Your task to perform on an android device: show emergency info Image 0: 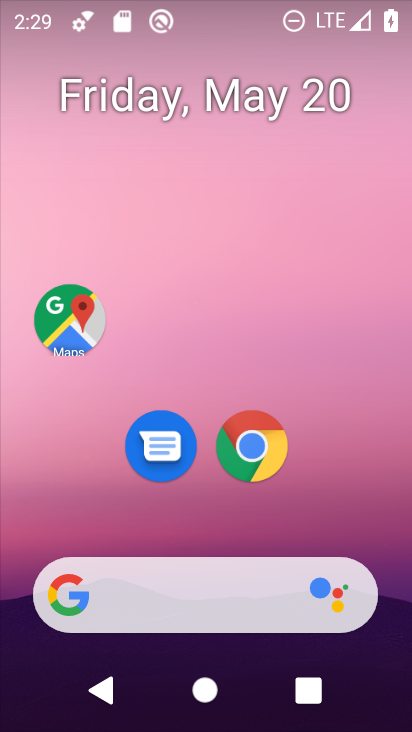
Step 0: drag from (342, 542) to (291, 2)
Your task to perform on an android device: show emergency info Image 1: 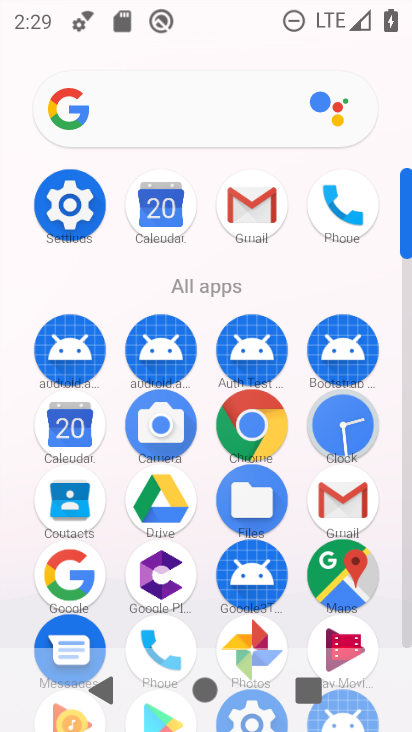
Step 1: click (75, 201)
Your task to perform on an android device: show emergency info Image 2: 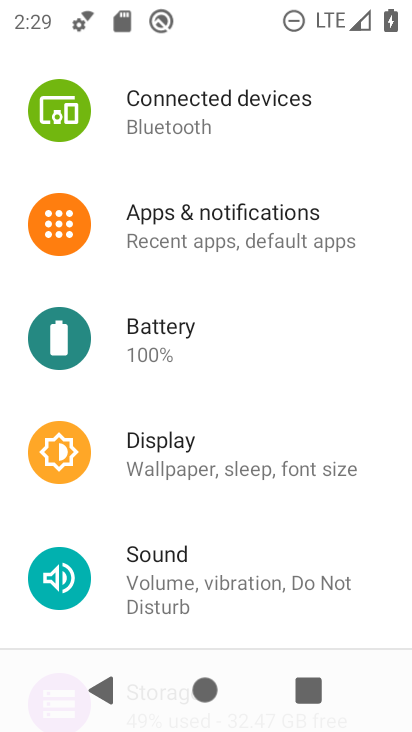
Step 2: drag from (383, 596) to (325, 5)
Your task to perform on an android device: show emergency info Image 3: 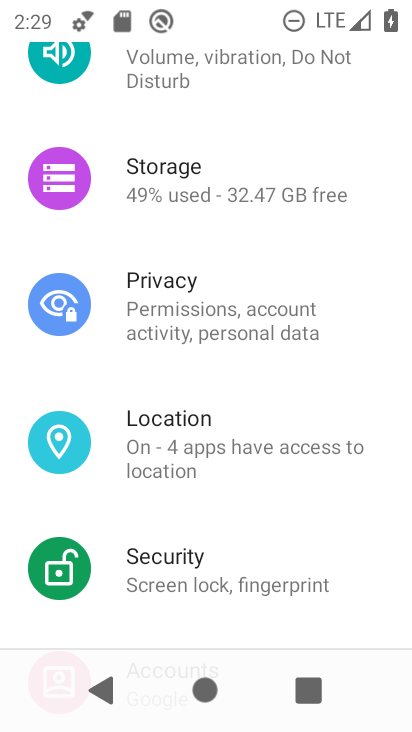
Step 3: drag from (244, 538) to (238, 97)
Your task to perform on an android device: show emergency info Image 4: 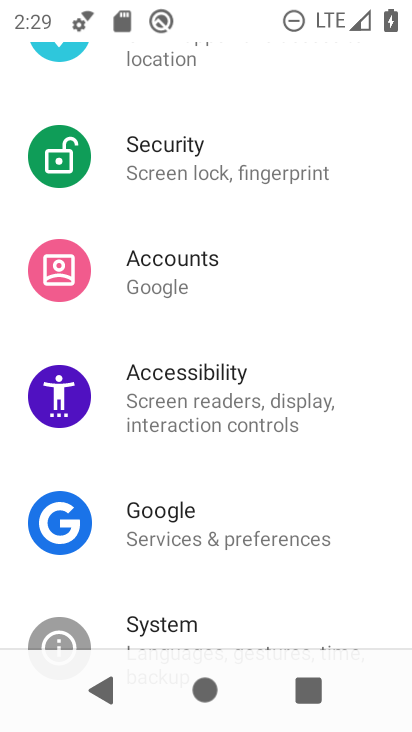
Step 4: drag from (167, 511) to (175, 98)
Your task to perform on an android device: show emergency info Image 5: 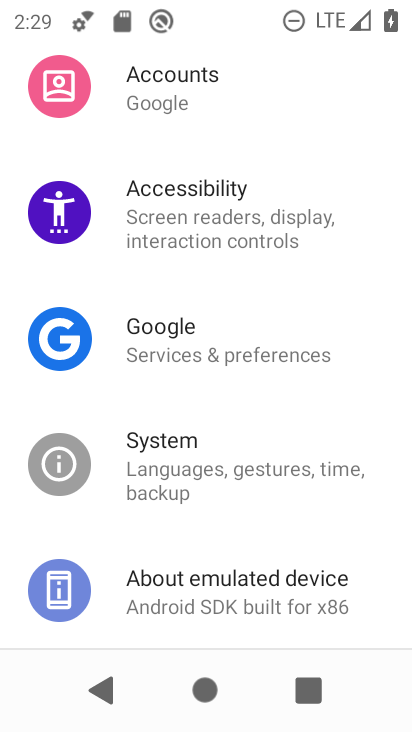
Step 5: click (151, 585)
Your task to perform on an android device: show emergency info Image 6: 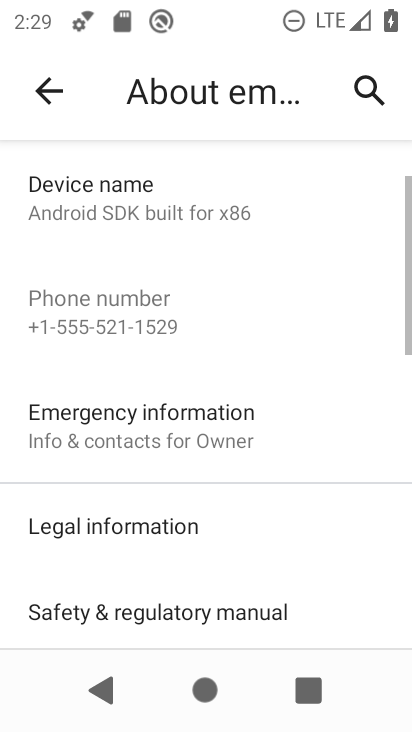
Step 6: click (134, 406)
Your task to perform on an android device: show emergency info Image 7: 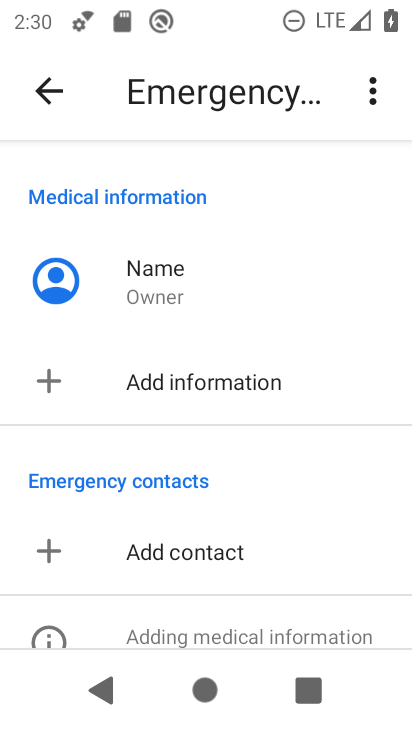
Step 7: task complete